Your task to perform on an android device: Open Youtube and go to the subscriptions tab Image 0: 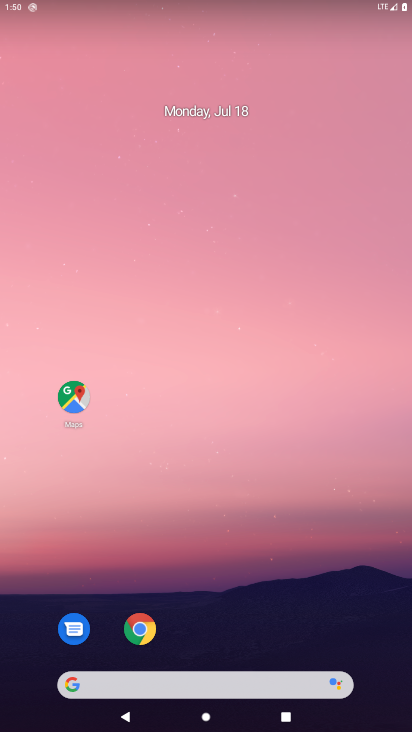
Step 0: drag from (244, 551) to (262, 40)
Your task to perform on an android device: Open Youtube and go to the subscriptions tab Image 1: 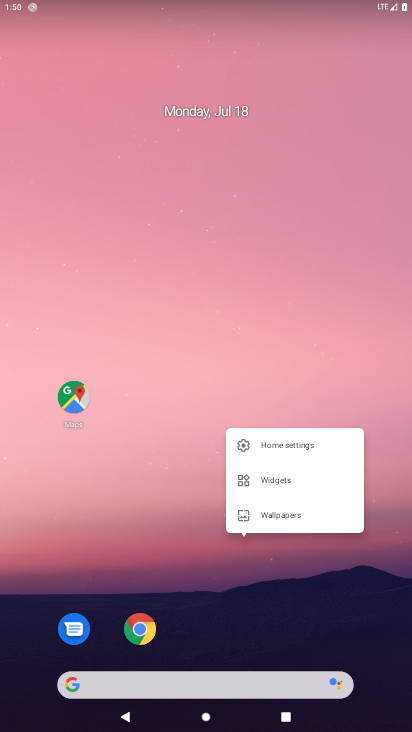
Step 1: click (138, 472)
Your task to perform on an android device: Open Youtube and go to the subscriptions tab Image 2: 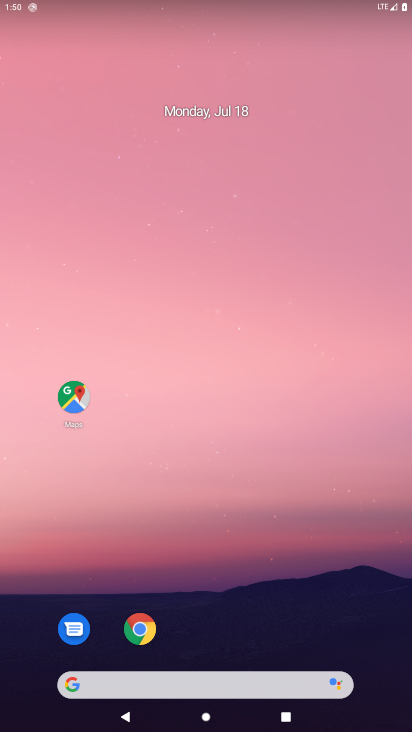
Step 2: drag from (284, 574) to (339, 99)
Your task to perform on an android device: Open Youtube and go to the subscriptions tab Image 3: 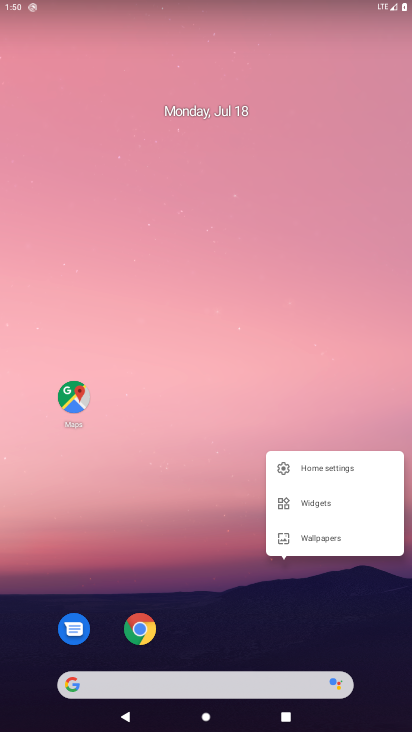
Step 3: click (195, 409)
Your task to perform on an android device: Open Youtube and go to the subscriptions tab Image 4: 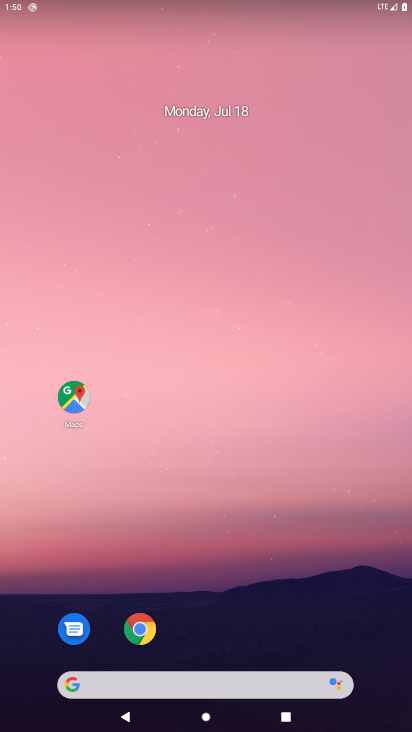
Step 4: drag from (225, 504) to (265, 90)
Your task to perform on an android device: Open Youtube and go to the subscriptions tab Image 5: 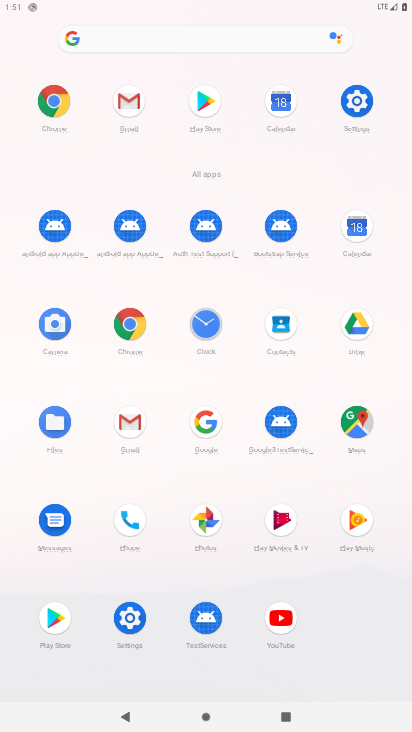
Step 5: click (281, 621)
Your task to perform on an android device: Open Youtube and go to the subscriptions tab Image 6: 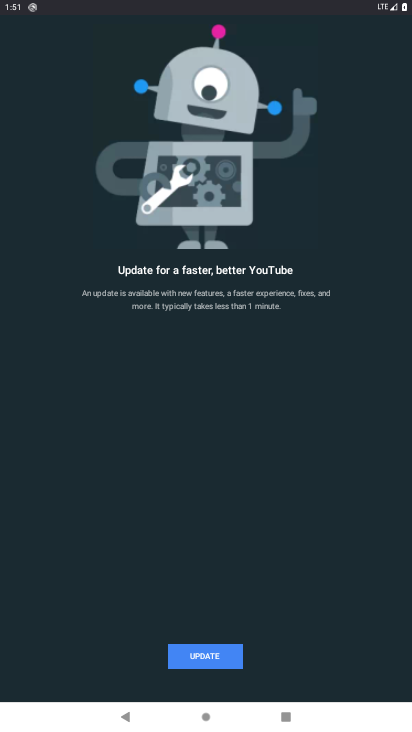
Step 6: task complete